Your task to perform on an android device: Open sound settings Image 0: 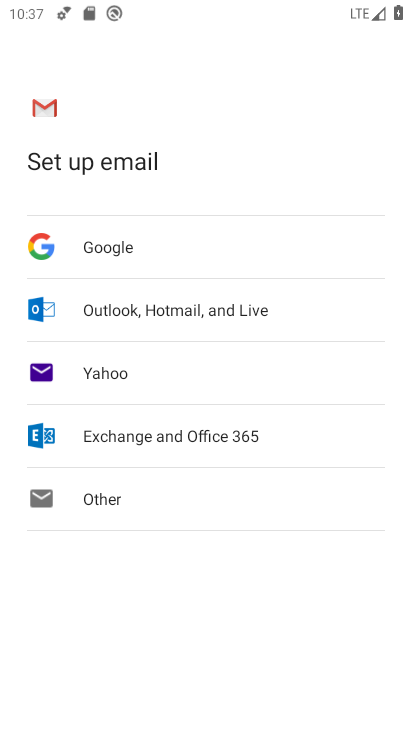
Step 0: press home button
Your task to perform on an android device: Open sound settings Image 1: 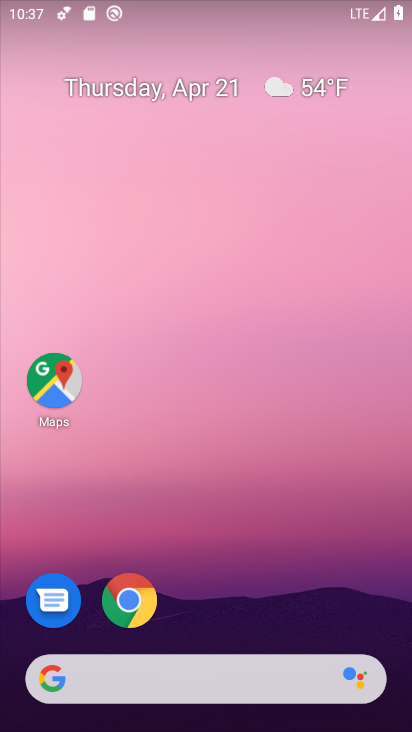
Step 1: drag from (243, 456) to (212, 42)
Your task to perform on an android device: Open sound settings Image 2: 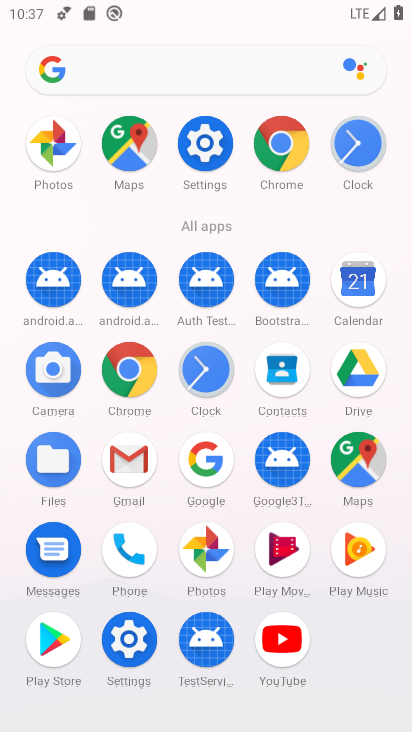
Step 2: click (211, 144)
Your task to perform on an android device: Open sound settings Image 3: 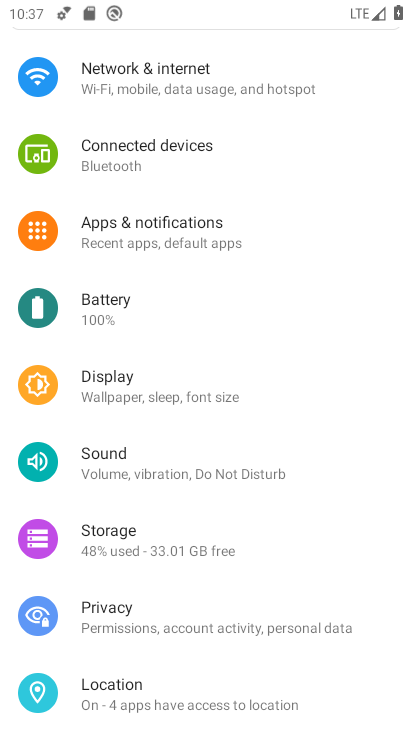
Step 3: click (198, 464)
Your task to perform on an android device: Open sound settings Image 4: 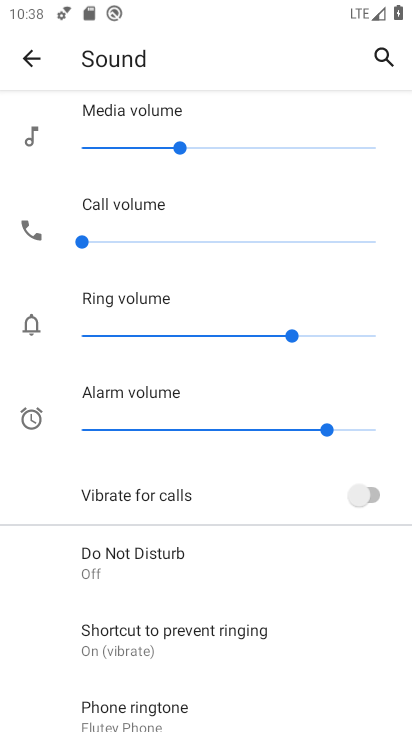
Step 4: task complete